Your task to perform on an android device: Open the calendar app, open the side menu, and click the "Day" option Image 0: 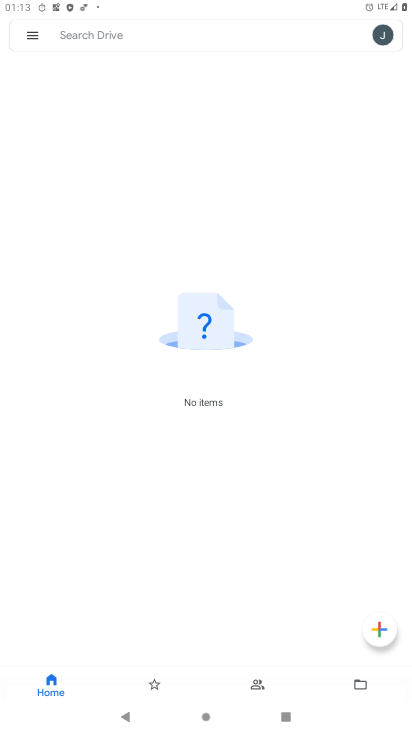
Step 0: press home button
Your task to perform on an android device: Open the calendar app, open the side menu, and click the "Day" option Image 1: 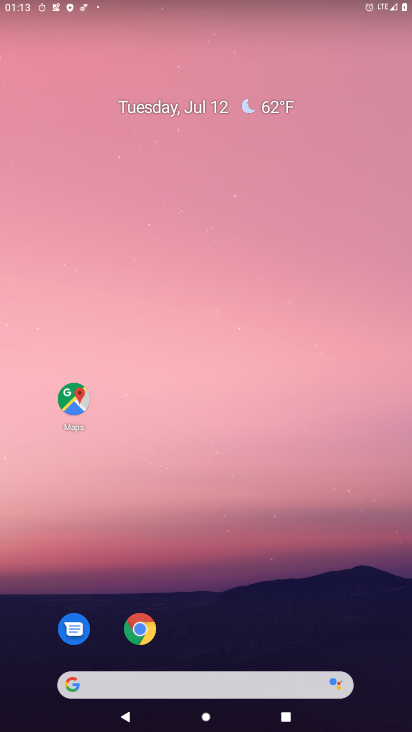
Step 1: drag from (342, 629) to (308, 0)
Your task to perform on an android device: Open the calendar app, open the side menu, and click the "Day" option Image 2: 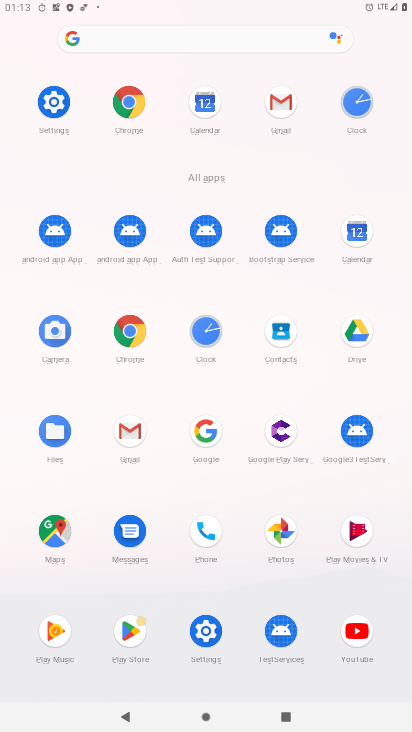
Step 2: click (200, 94)
Your task to perform on an android device: Open the calendar app, open the side menu, and click the "Day" option Image 3: 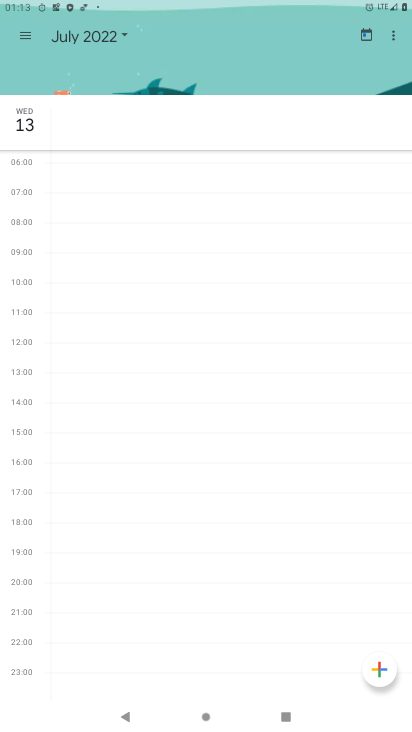
Step 3: click (23, 35)
Your task to perform on an android device: Open the calendar app, open the side menu, and click the "Day" option Image 4: 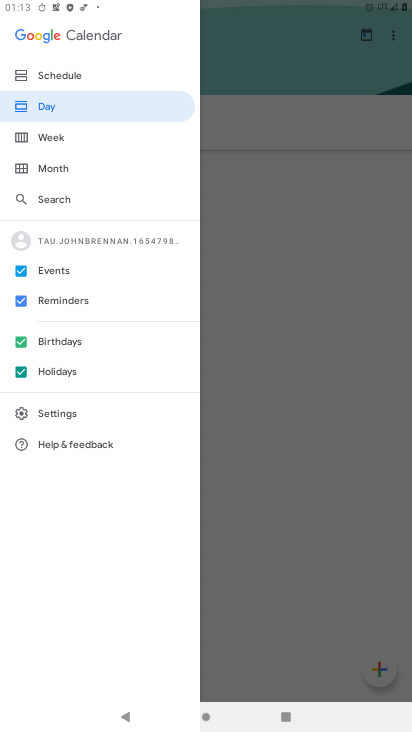
Step 4: click (37, 99)
Your task to perform on an android device: Open the calendar app, open the side menu, and click the "Day" option Image 5: 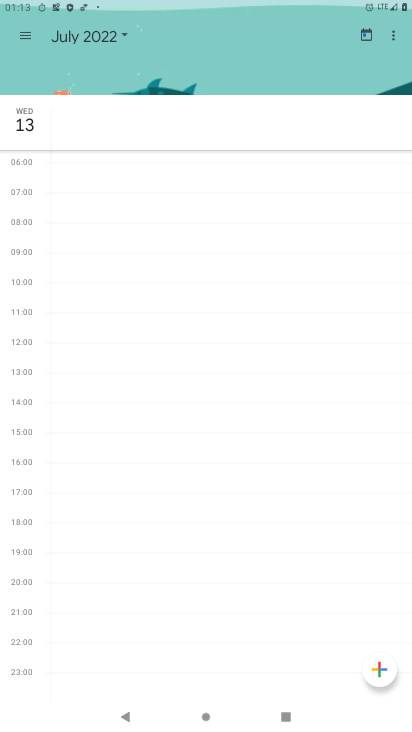
Step 5: task complete